Your task to perform on an android device: Open Amazon Image 0: 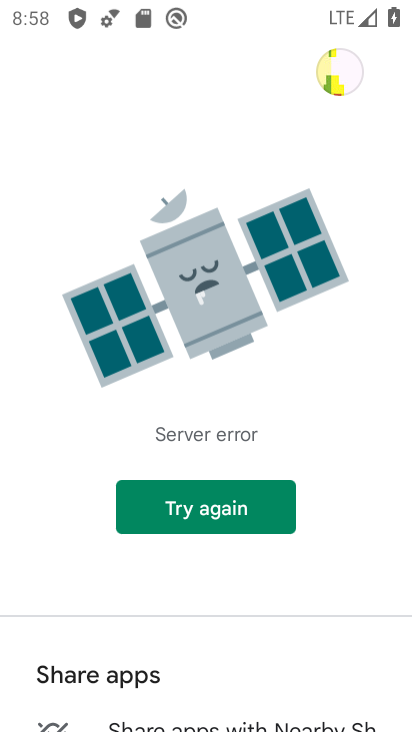
Step 0: press home button
Your task to perform on an android device: Open Amazon Image 1: 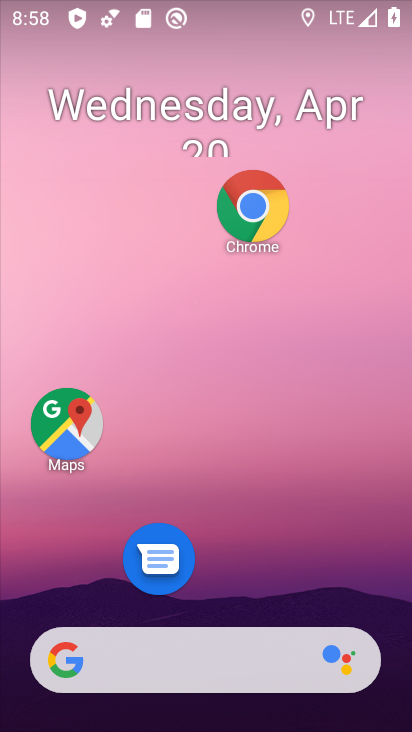
Step 1: click (259, 207)
Your task to perform on an android device: Open Amazon Image 2: 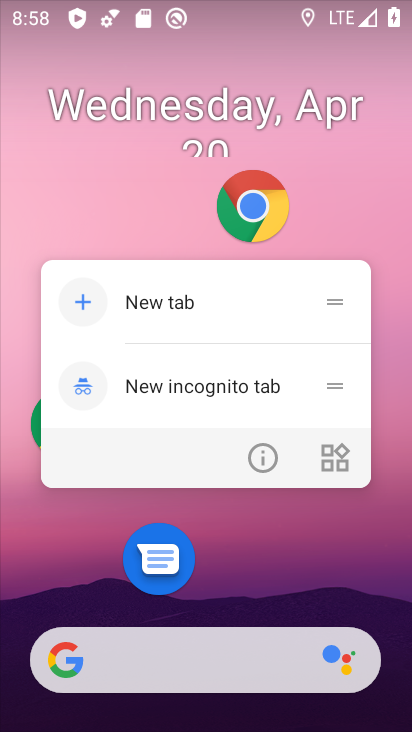
Step 2: click (253, 210)
Your task to perform on an android device: Open Amazon Image 3: 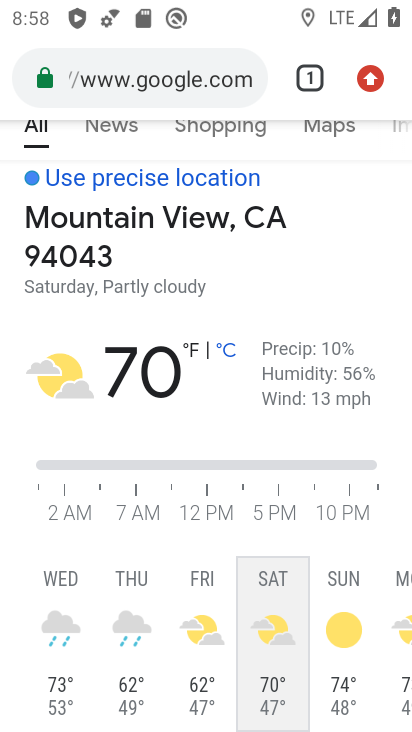
Step 3: click (179, 74)
Your task to perform on an android device: Open Amazon Image 4: 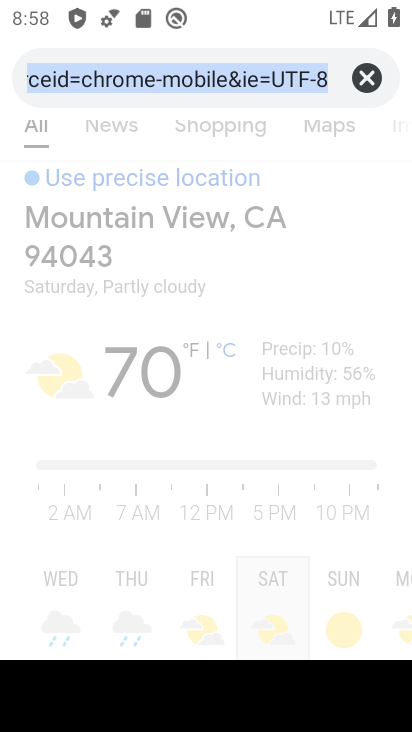
Step 4: type "Amazon"
Your task to perform on an android device: Open Amazon Image 5: 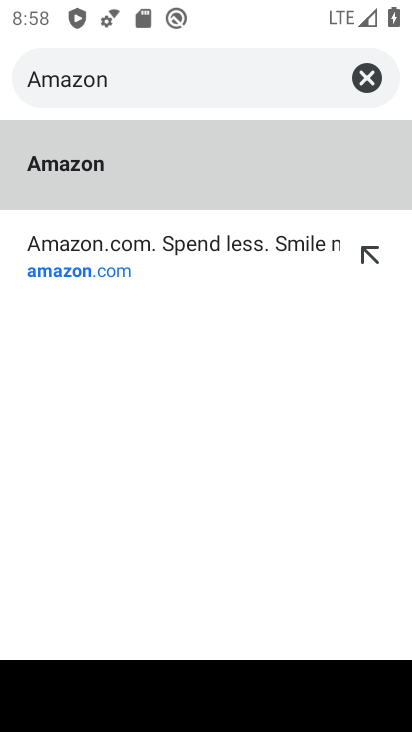
Step 5: click (65, 266)
Your task to perform on an android device: Open Amazon Image 6: 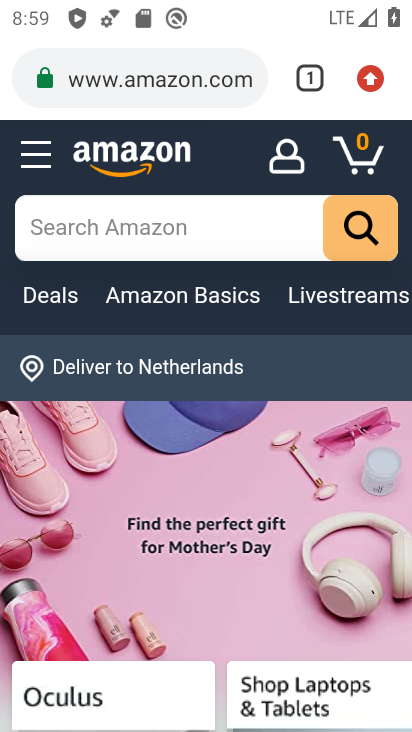
Step 6: task complete